Your task to perform on an android device: Open location settings Image 0: 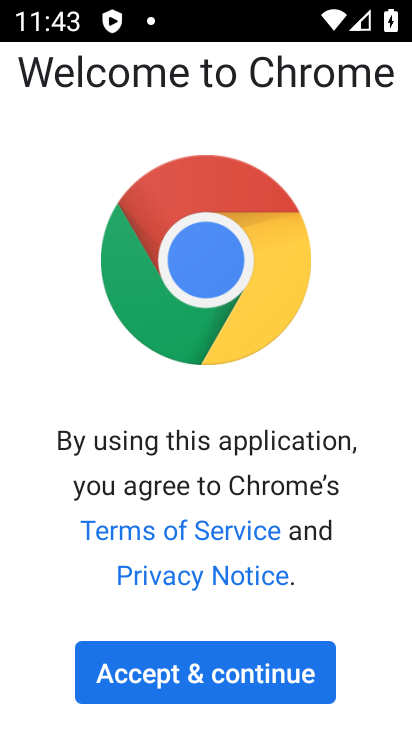
Step 0: press home button
Your task to perform on an android device: Open location settings Image 1: 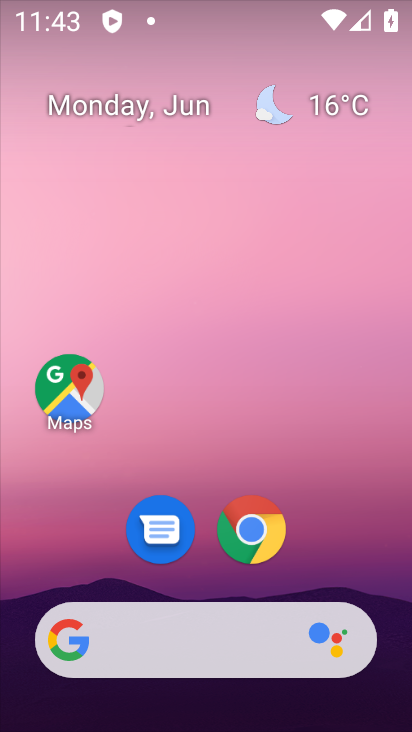
Step 1: drag from (95, 601) to (235, 100)
Your task to perform on an android device: Open location settings Image 2: 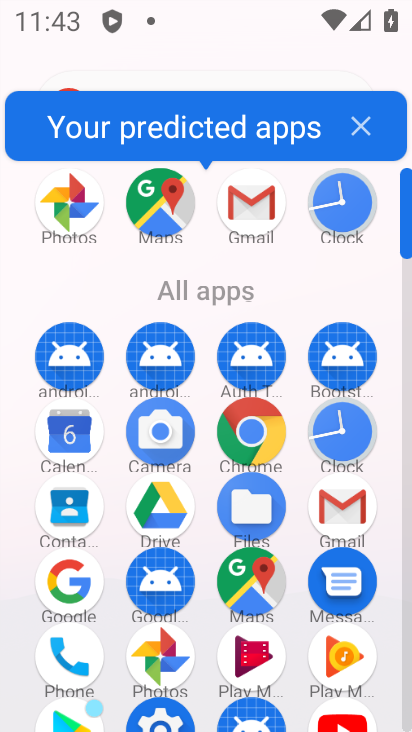
Step 2: drag from (195, 604) to (273, 281)
Your task to perform on an android device: Open location settings Image 3: 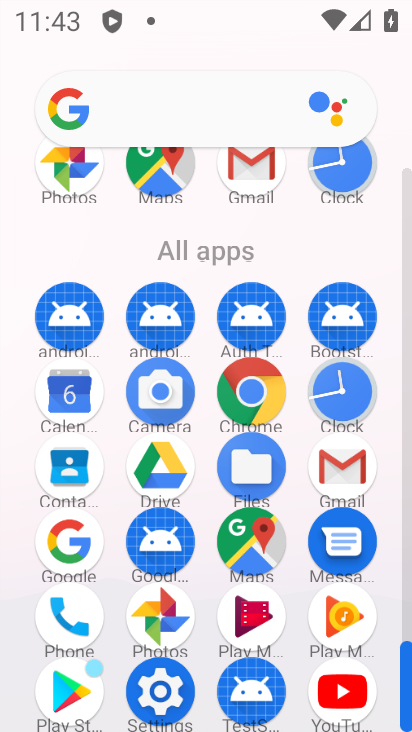
Step 3: click (156, 681)
Your task to perform on an android device: Open location settings Image 4: 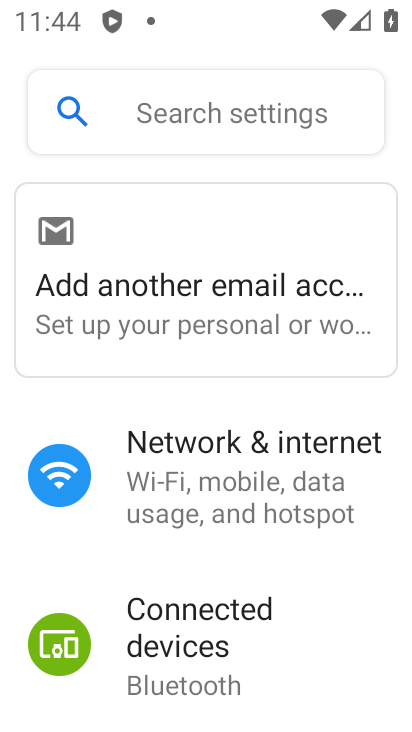
Step 4: drag from (180, 572) to (282, 94)
Your task to perform on an android device: Open location settings Image 5: 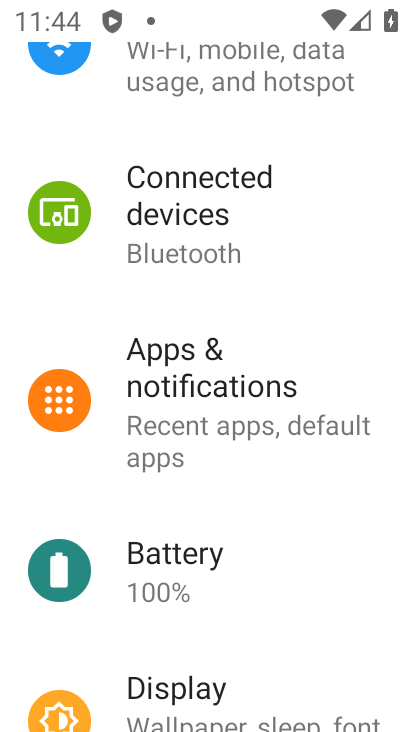
Step 5: drag from (169, 587) to (297, 108)
Your task to perform on an android device: Open location settings Image 6: 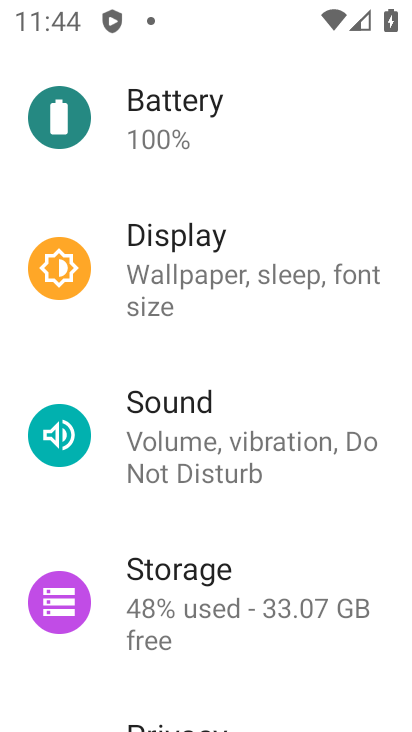
Step 6: drag from (203, 546) to (290, 140)
Your task to perform on an android device: Open location settings Image 7: 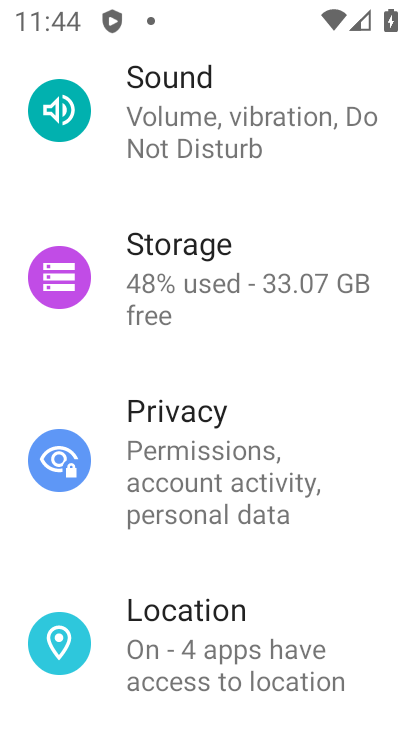
Step 7: drag from (203, 607) to (293, 286)
Your task to perform on an android device: Open location settings Image 8: 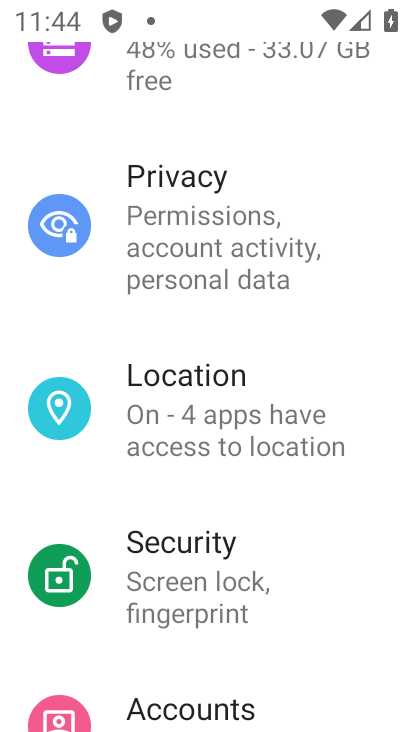
Step 8: click (221, 511)
Your task to perform on an android device: Open location settings Image 9: 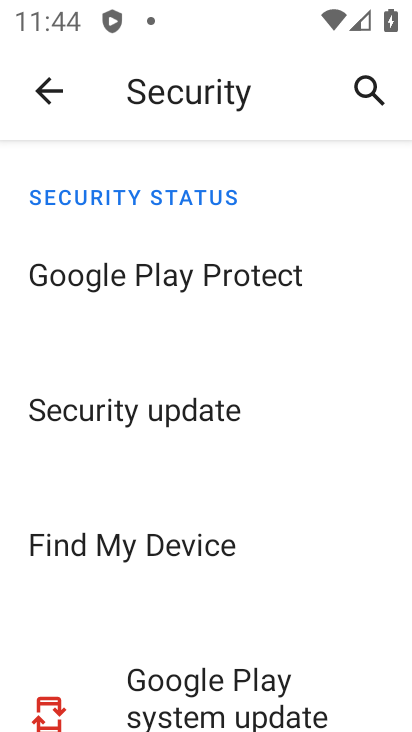
Step 9: task complete